Your task to perform on an android device: Open Google Chrome Image 0: 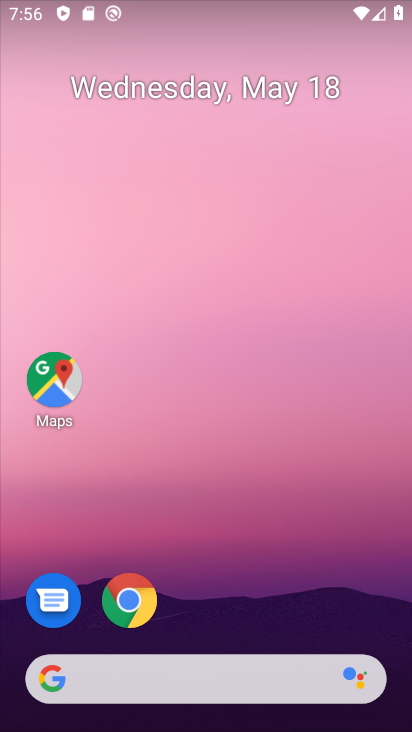
Step 0: press home button
Your task to perform on an android device: Open Google Chrome Image 1: 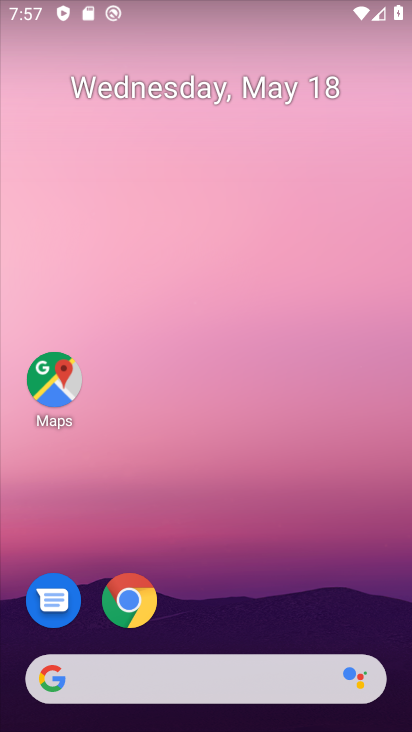
Step 1: drag from (274, 683) to (282, 154)
Your task to perform on an android device: Open Google Chrome Image 2: 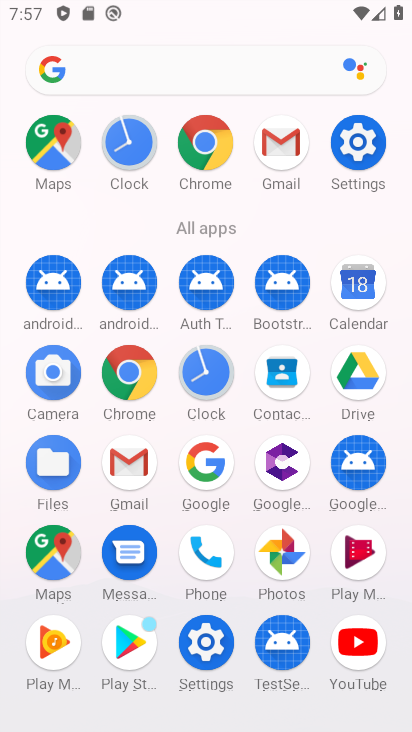
Step 2: click (199, 131)
Your task to perform on an android device: Open Google Chrome Image 3: 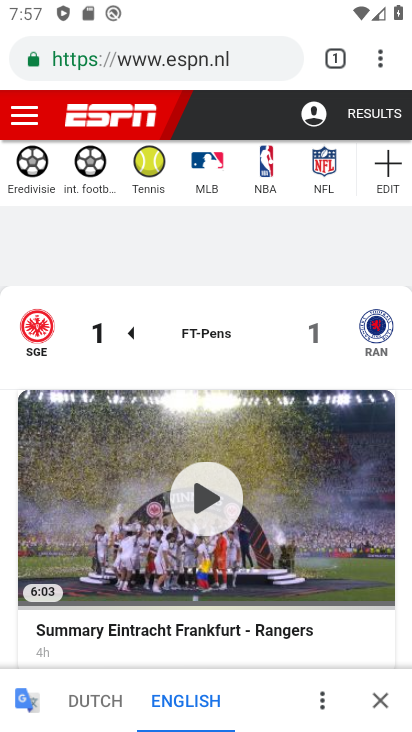
Step 3: click (343, 62)
Your task to perform on an android device: Open Google Chrome Image 4: 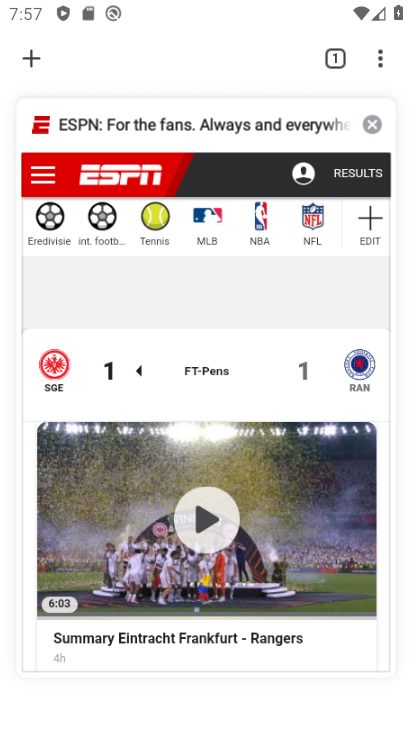
Step 4: click (38, 57)
Your task to perform on an android device: Open Google Chrome Image 5: 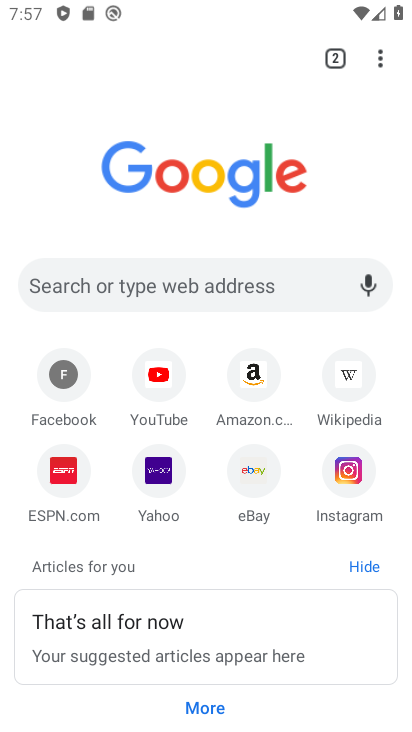
Step 5: task complete